Your task to perform on an android device: check the backup settings in the google photos Image 0: 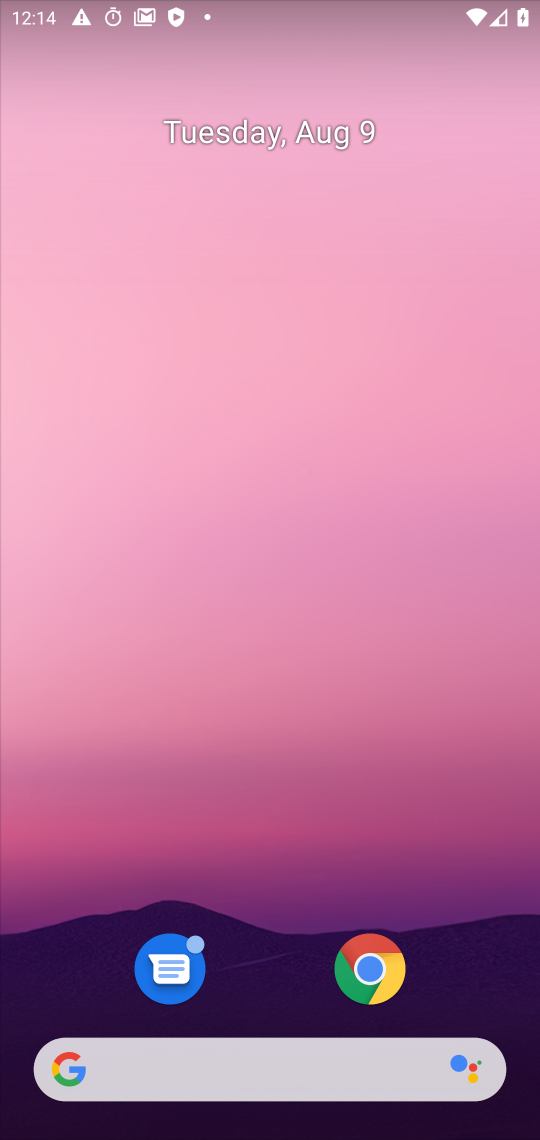
Step 0: click (106, 110)
Your task to perform on an android device: check the backup settings in the google photos Image 1: 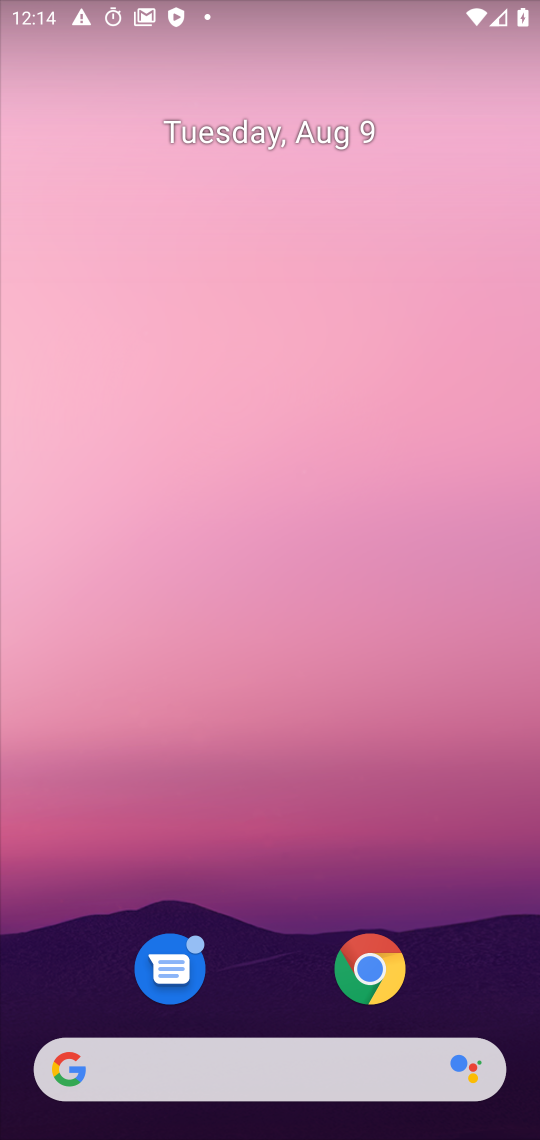
Step 1: drag from (267, 1084) to (233, 299)
Your task to perform on an android device: check the backup settings in the google photos Image 2: 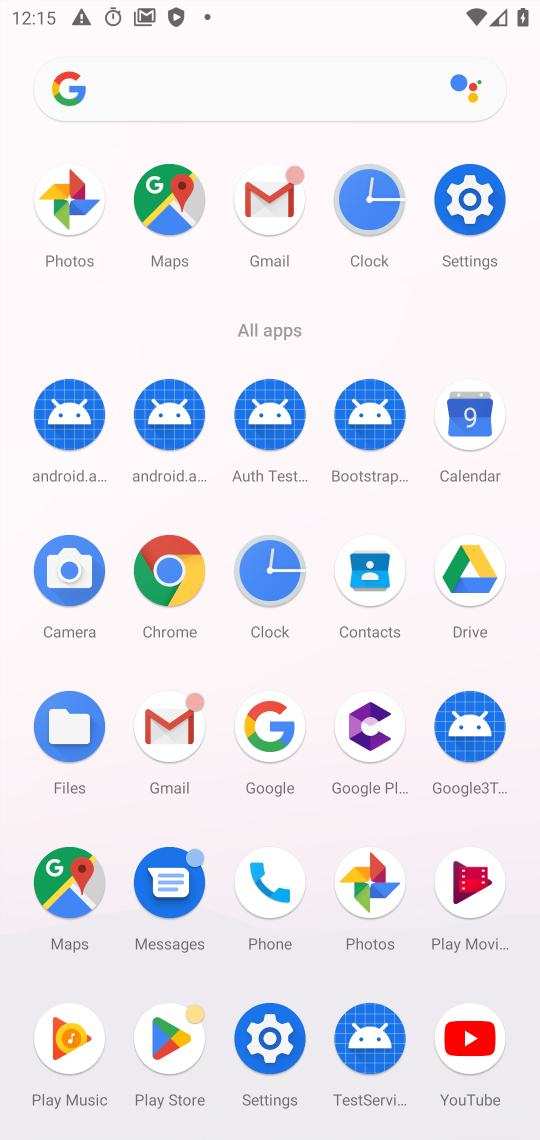
Step 2: click (381, 881)
Your task to perform on an android device: check the backup settings in the google photos Image 3: 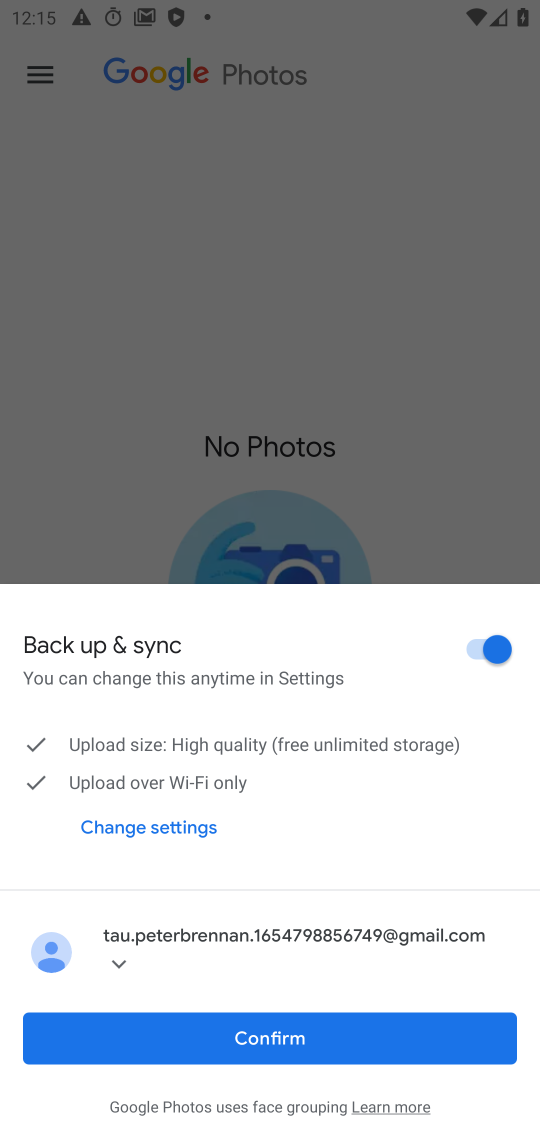
Step 3: click (249, 1054)
Your task to perform on an android device: check the backup settings in the google photos Image 4: 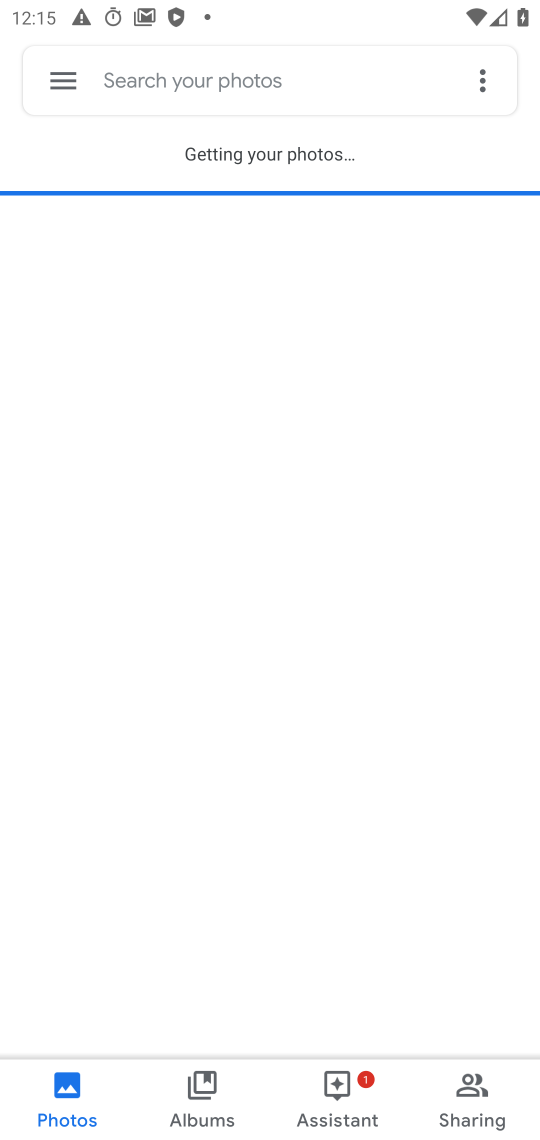
Step 4: click (48, 84)
Your task to perform on an android device: check the backup settings in the google photos Image 5: 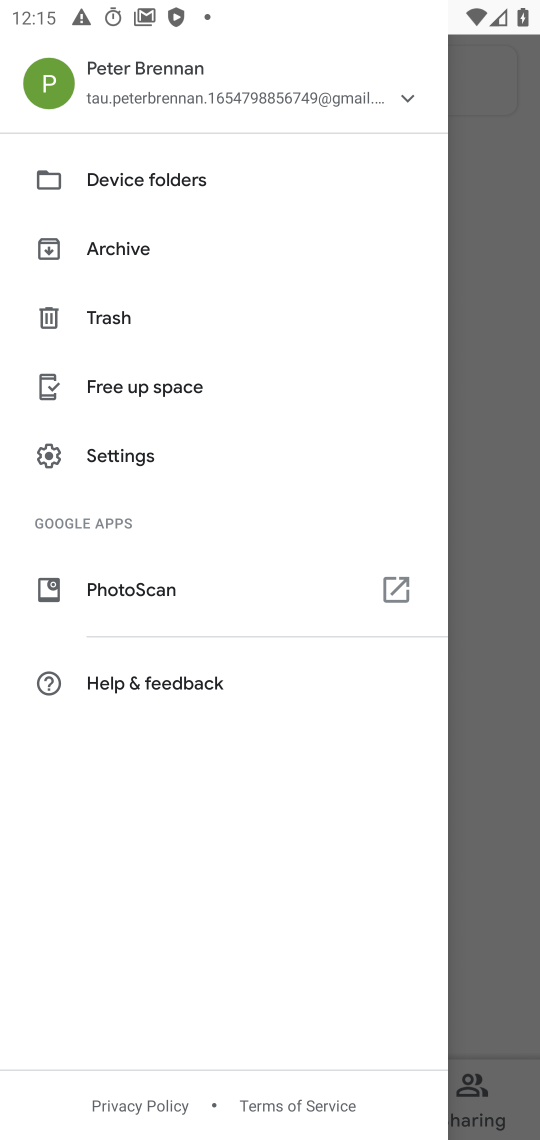
Step 5: click (130, 440)
Your task to perform on an android device: check the backup settings in the google photos Image 6: 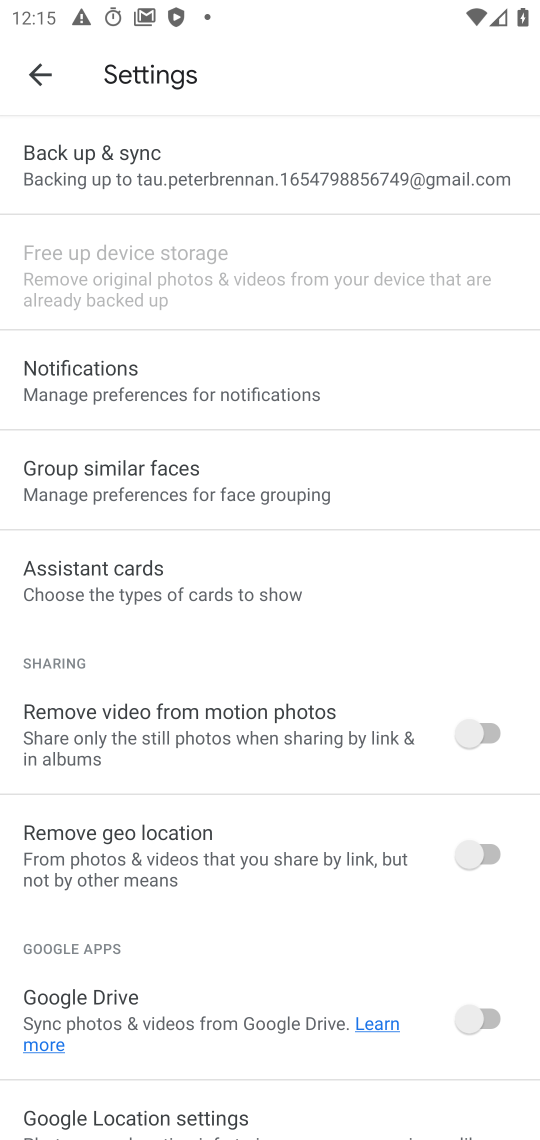
Step 6: click (131, 188)
Your task to perform on an android device: check the backup settings in the google photos Image 7: 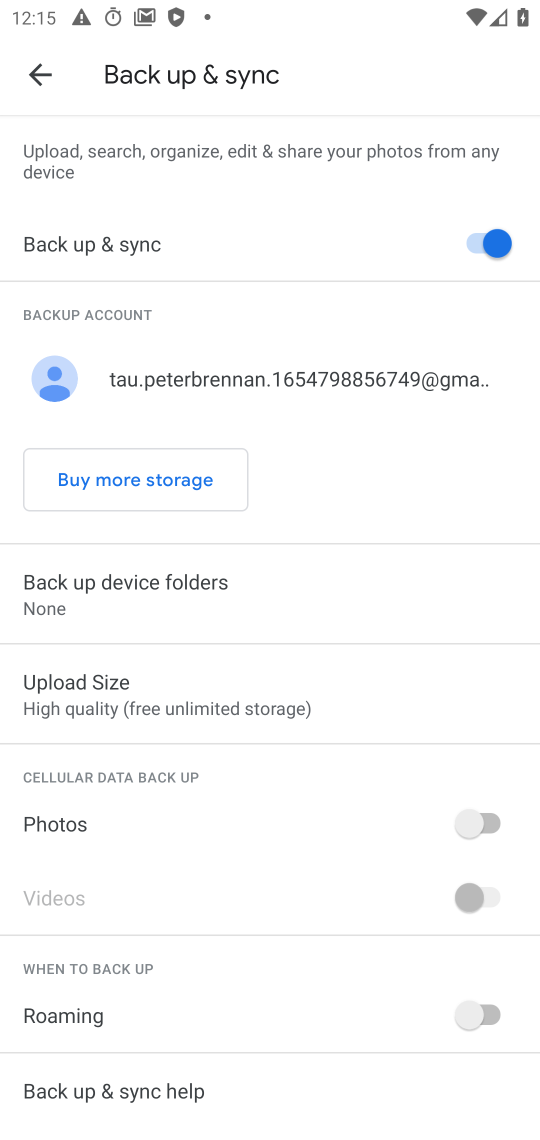
Step 7: task complete